Your task to perform on an android device: turn off location history Image 0: 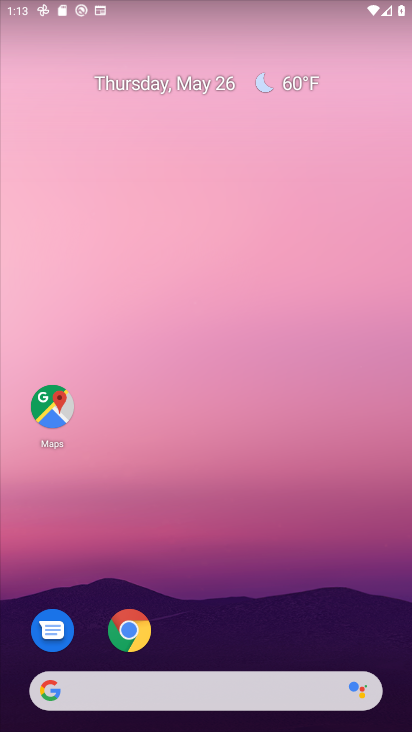
Step 0: drag from (298, 559) to (257, 80)
Your task to perform on an android device: turn off location history Image 1: 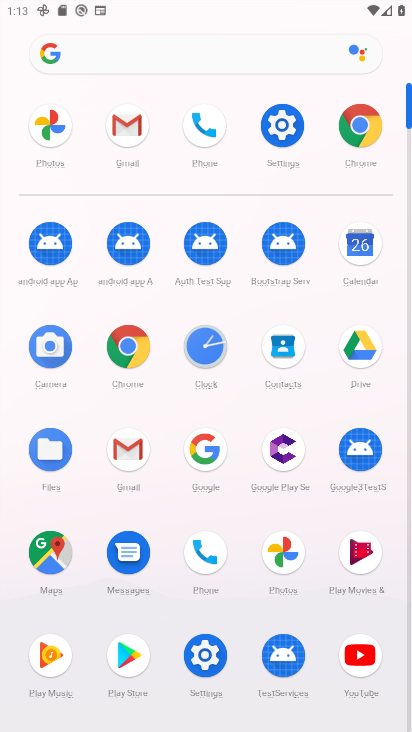
Step 1: click (281, 136)
Your task to perform on an android device: turn off location history Image 2: 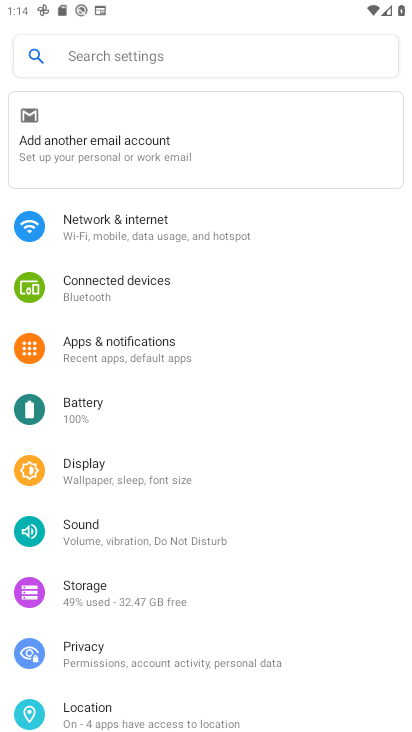
Step 2: drag from (164, 612) to (173, 309)
Your task to perform on an android device: turn off location history Image 3: 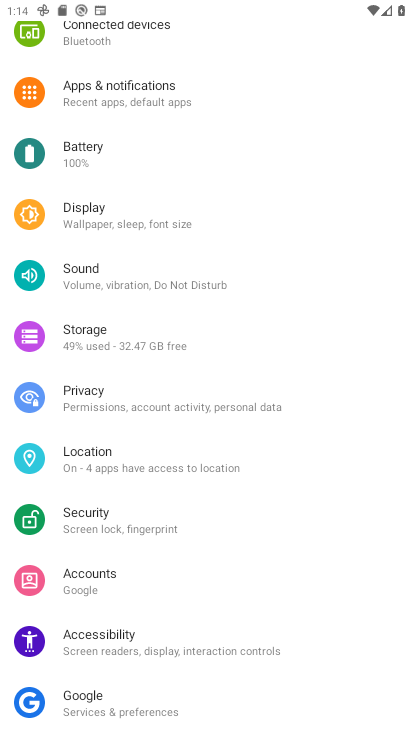
Step 3: click (124, 460)
Your task to perform on an android device: turn off location history Image 4: 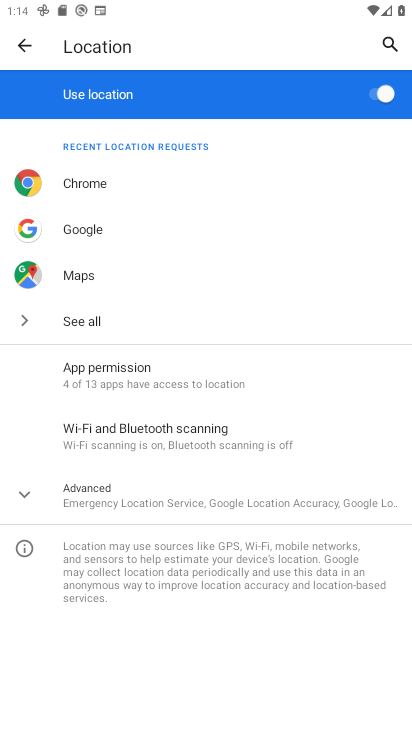
Step 4: drag from (235, 515) to (210, 259)
Your task to perform on an android device: turn off location history Image 5: 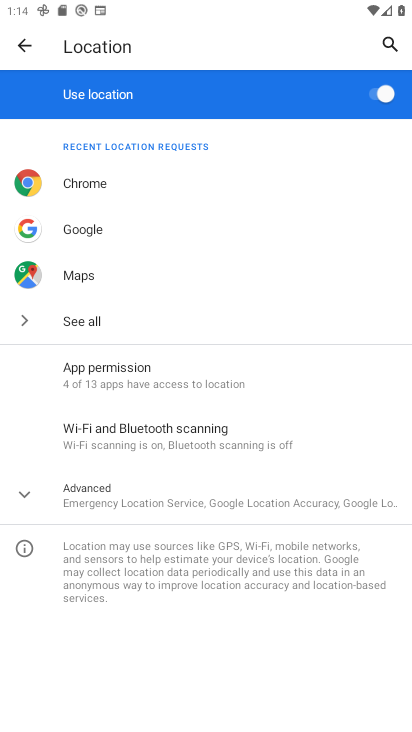
Step 5: click (117, 485)
Your task to perform on an android device: turn off location history Image 6: 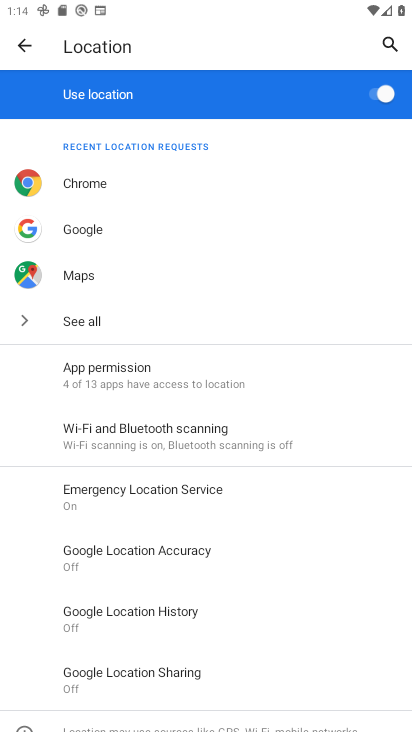
Step 6: click (186, 612)
Your task to perform on an android device: turn off location history Image 7: 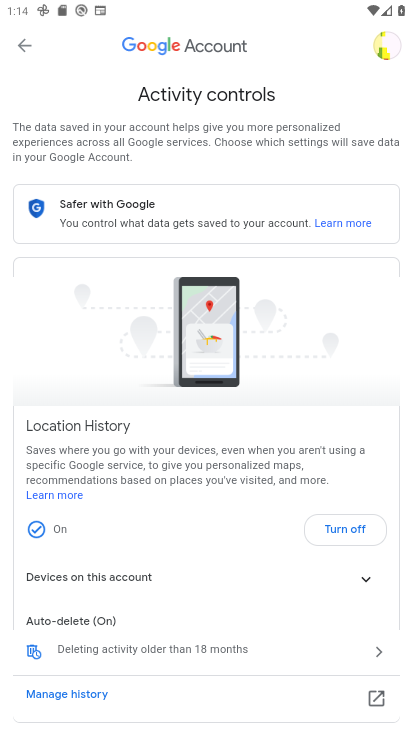
Step 7: click (329, 530)
Your task to perform on an android device: turn off location history Image 8: 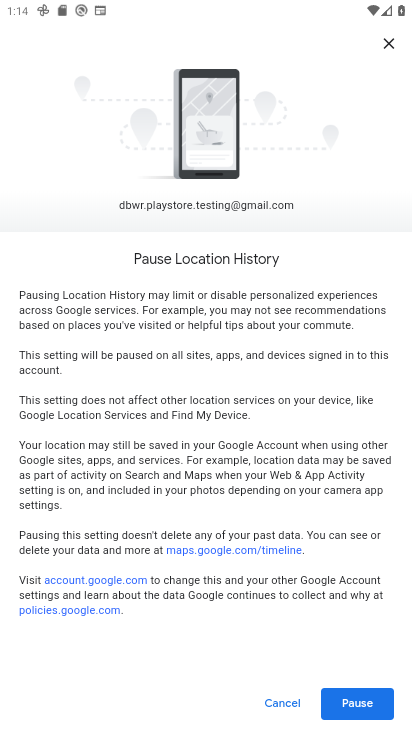
Step 8: click (371, 701)
Your task to perform on an android device: turn off location history Image 9: 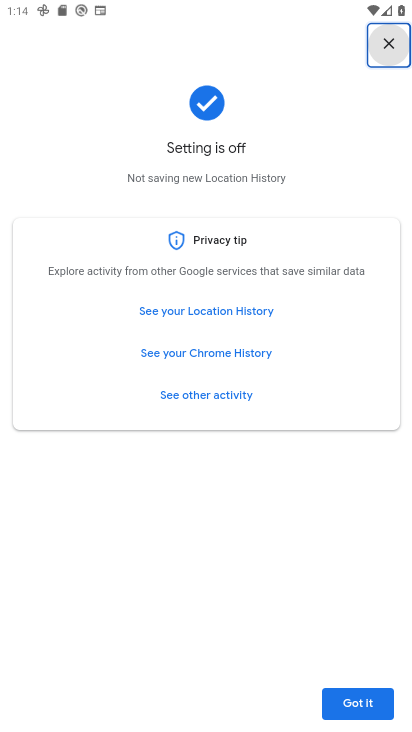
Step 9: click (370, 700)
Your task to perform on an android device: turn off location history Image 10: 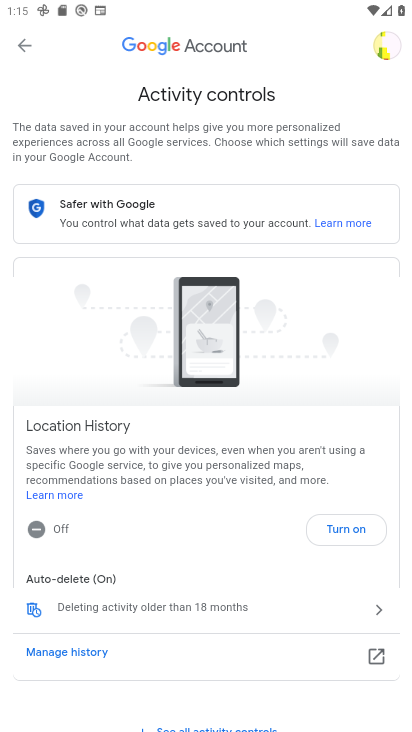
Step 10: task complete